Your task to perform on an android device: Go to display settings Image 0: 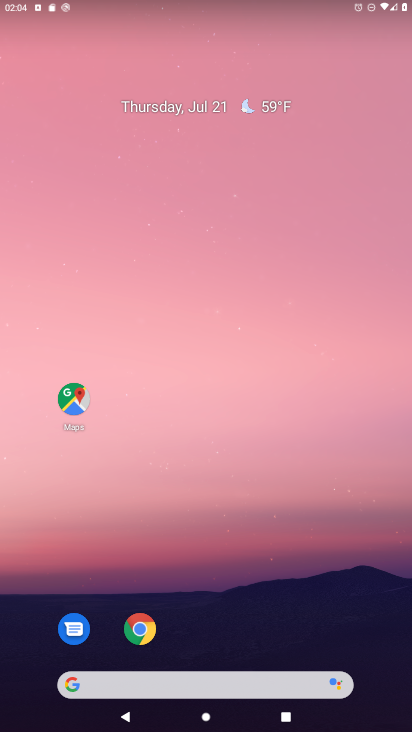
Step 0: drag from (377, 664) to (310, 97)
Your task to perform on an android device: Go to display settings Image 1: 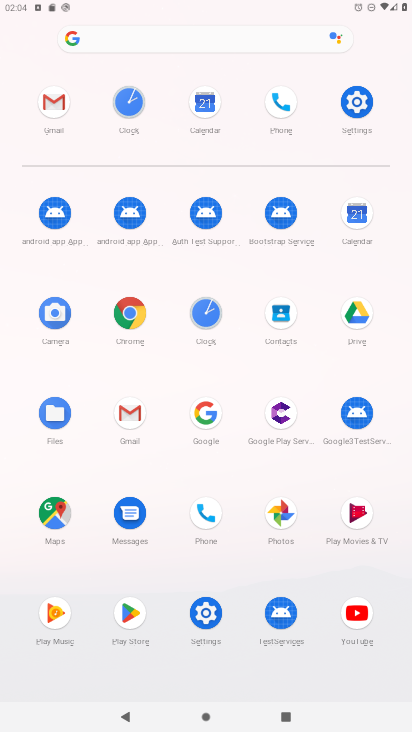
Step 1: click (206, 612)
Your task to perform on an android device: Go to display settings Image 2: 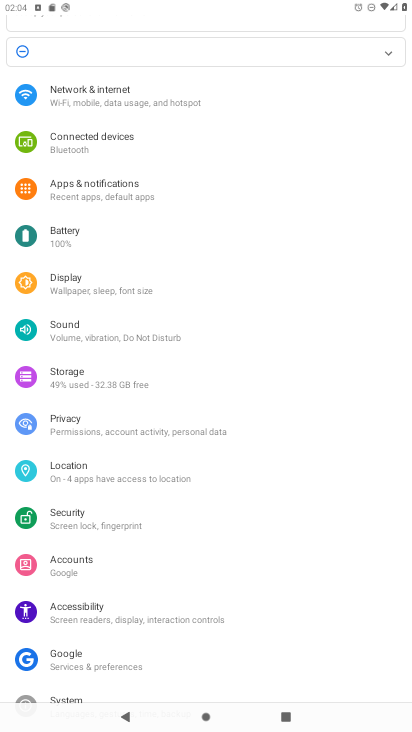
Step 2: click (61, 275)
Your task to perform on an android device: Go to display settings Image 3: 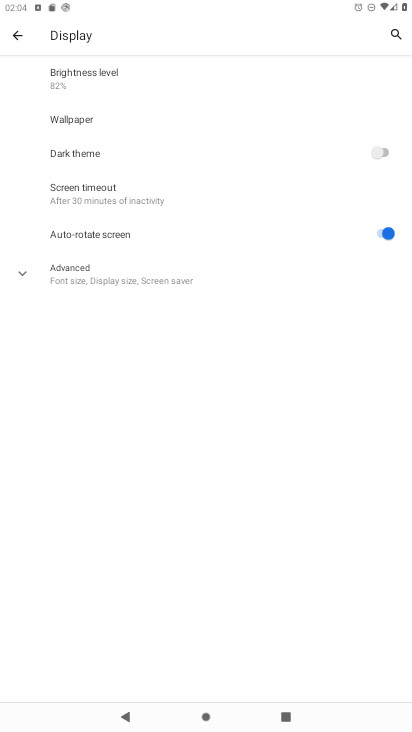
Step 3: click (23, 272)
Your task to perform on an android device: Go to display settings Image 4: 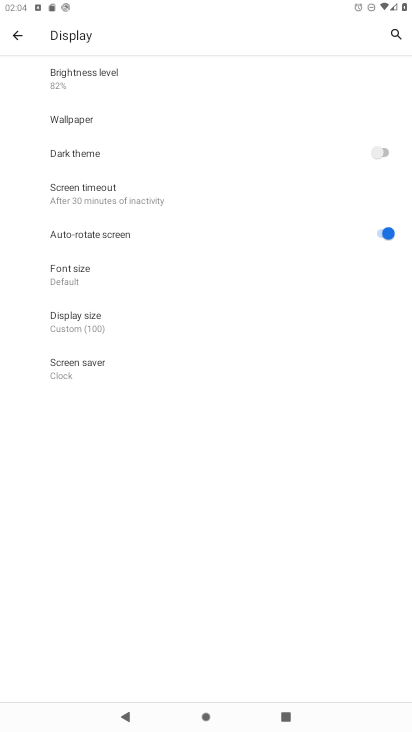
Step 4: task complete